Your task to perform on an android device: toggle show notifications on the lock screen Image 0: 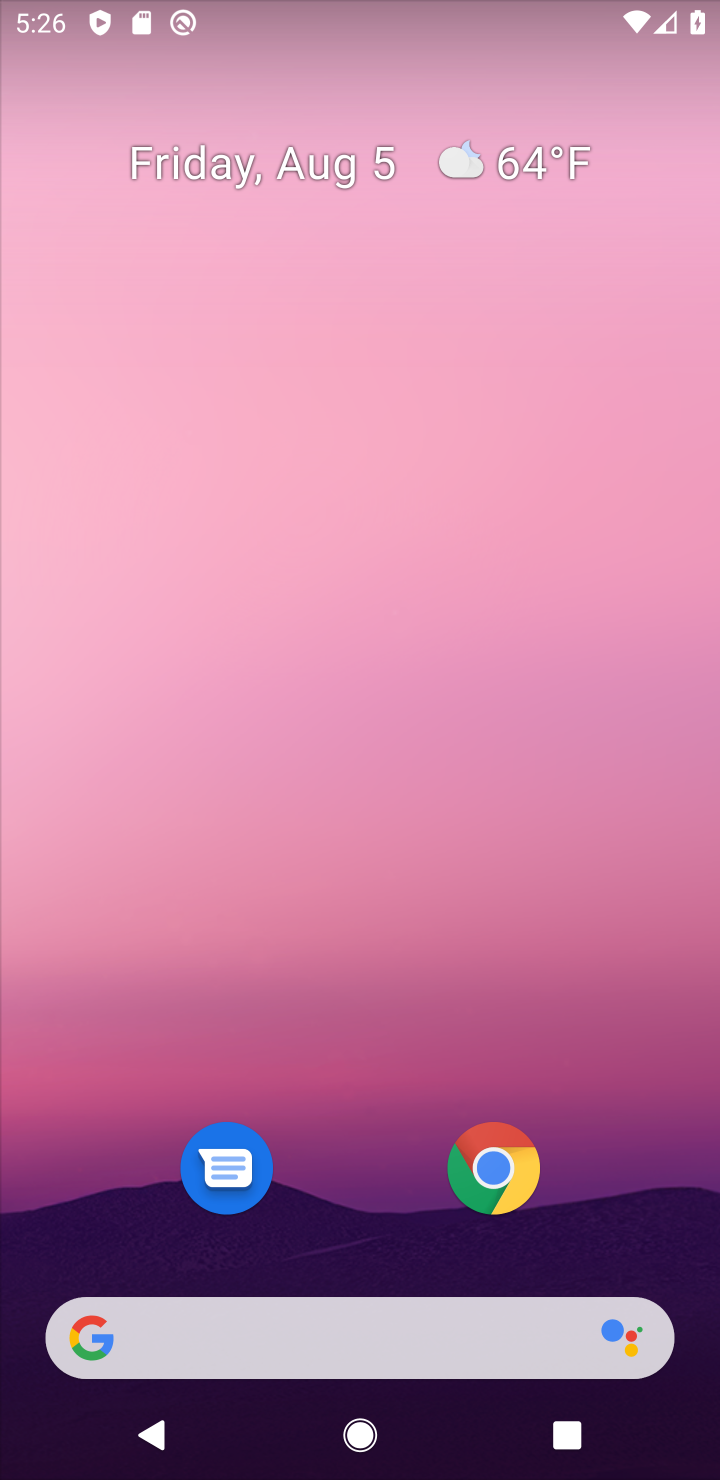
Step 0: press home button
Your task to perform on an android device: toggle show notifications on the lock screen Image 1: 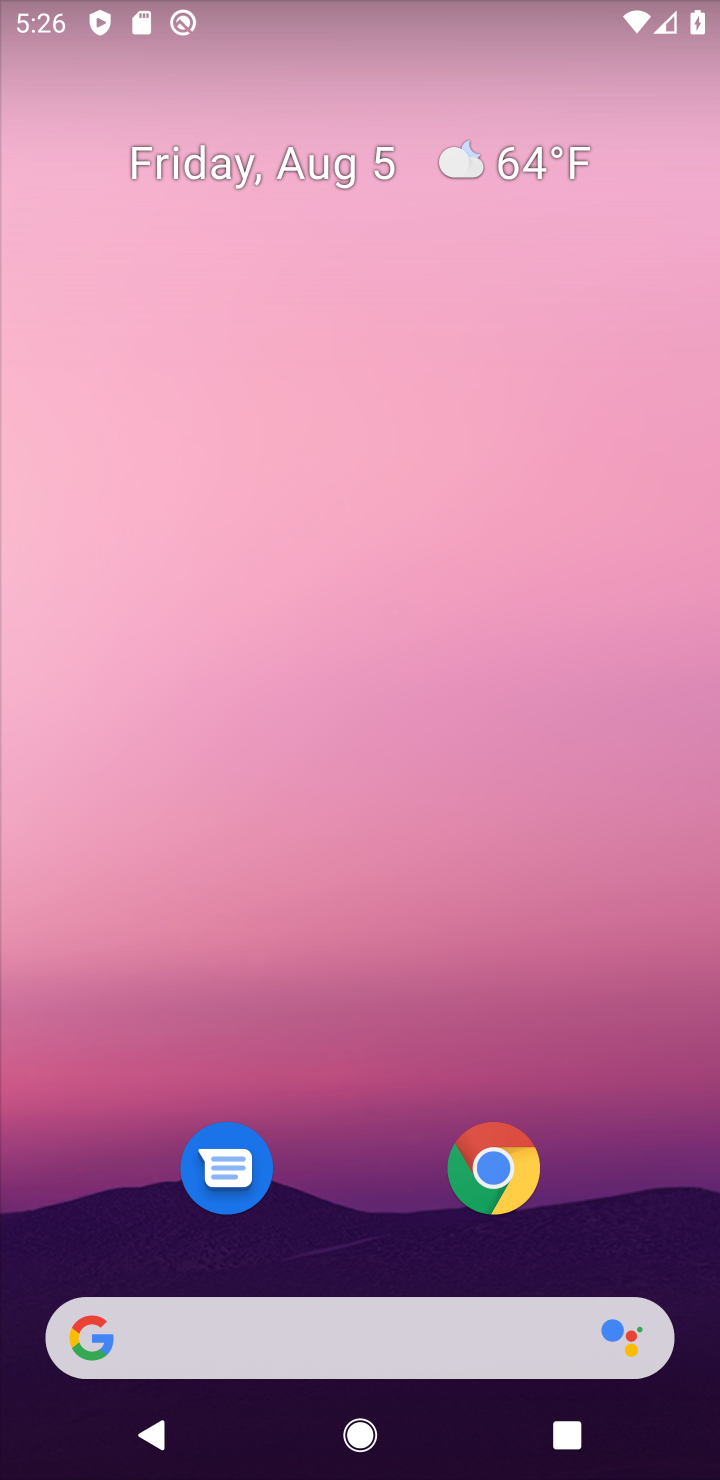
Step 1: drag from (385, 1192) to (392, 97)
Your task to perform on an android device: toggle show notifications on the lock screen Image 2: 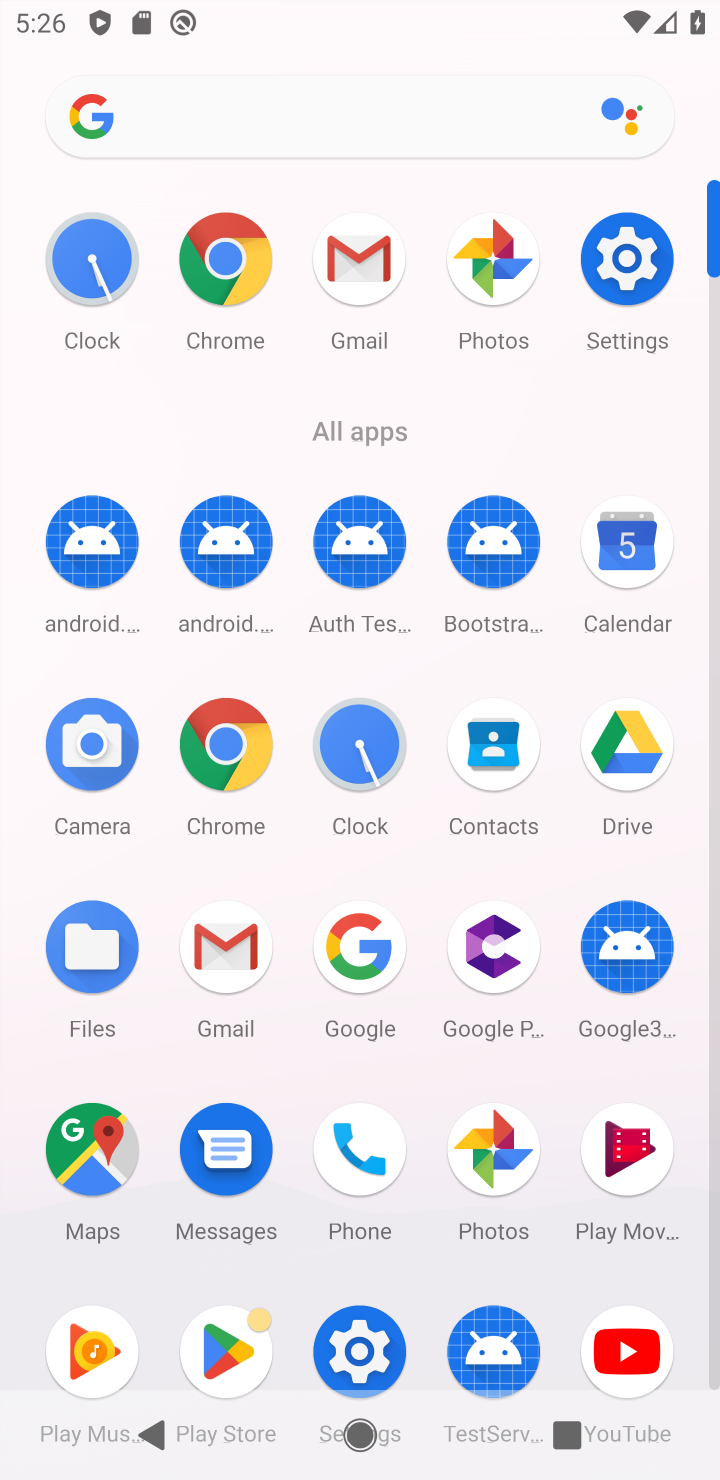
Step 2: click (621, 269)
Your task to perform on an android device: toggle show notifications on the lock screen Image 3: 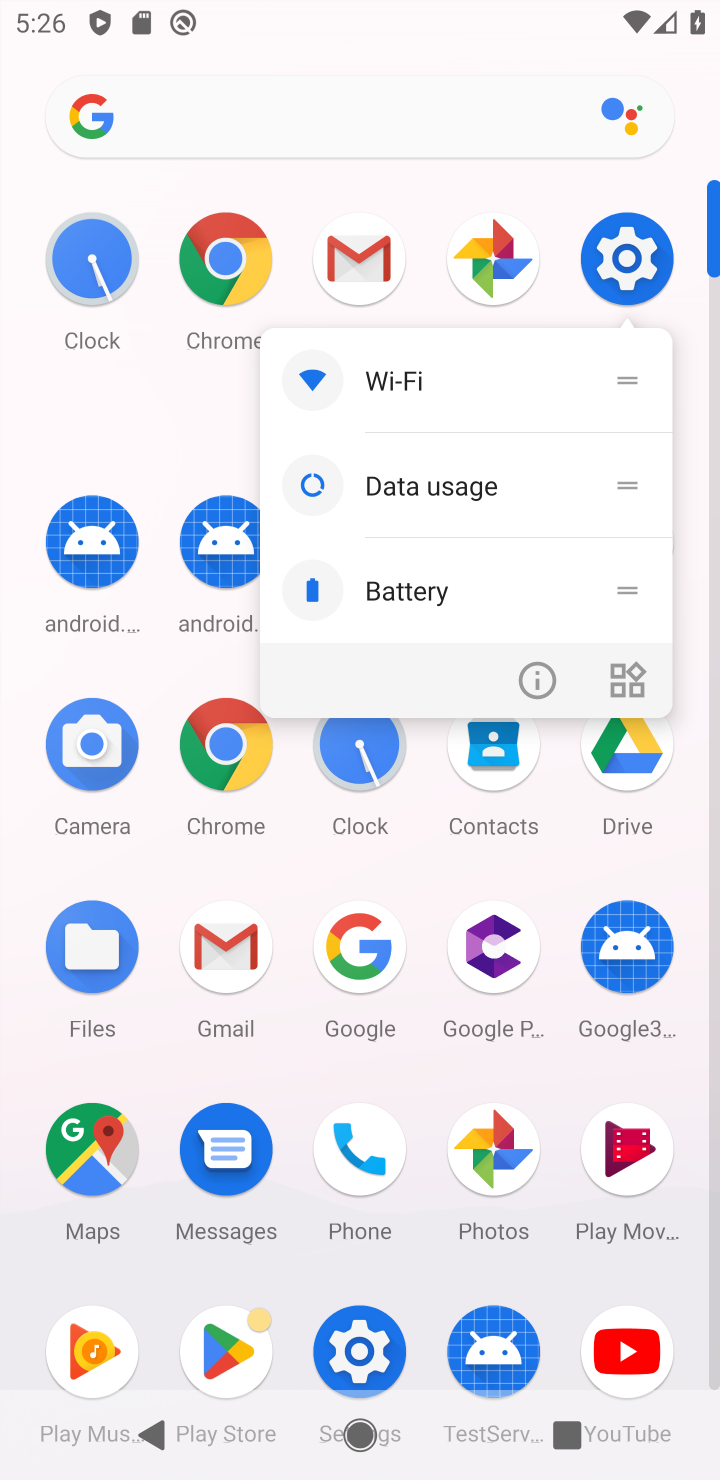
Step 3: click (621, 269)
Your task to perform on an android device: toggle show notifications on the lock screen Image 4: 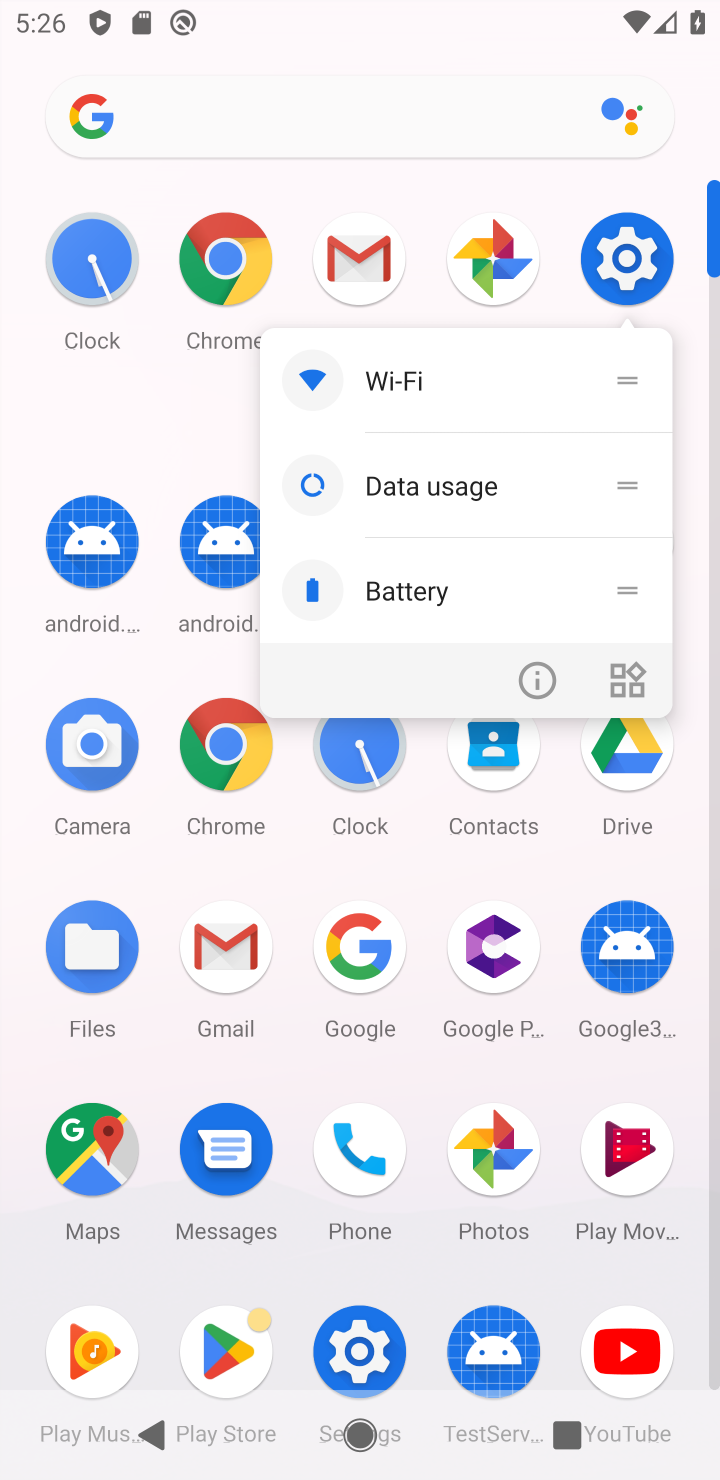
Step 4: click (640, 268)
Your task to perform on an android device: toggle show notifications on the lock screen Image 5: 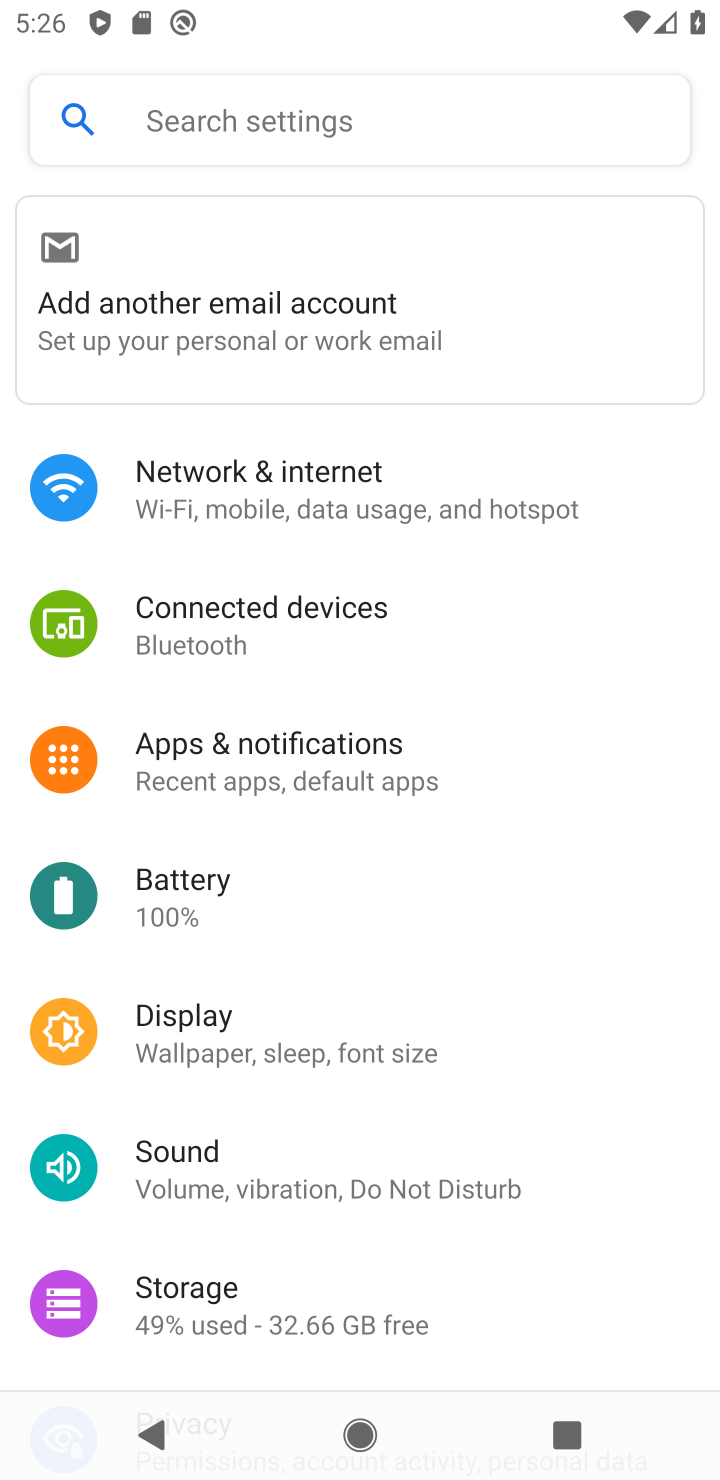
Step 5: click (210, 756)
Your task to perform on an android device: toggle show notifications on the lock screen Image 6: 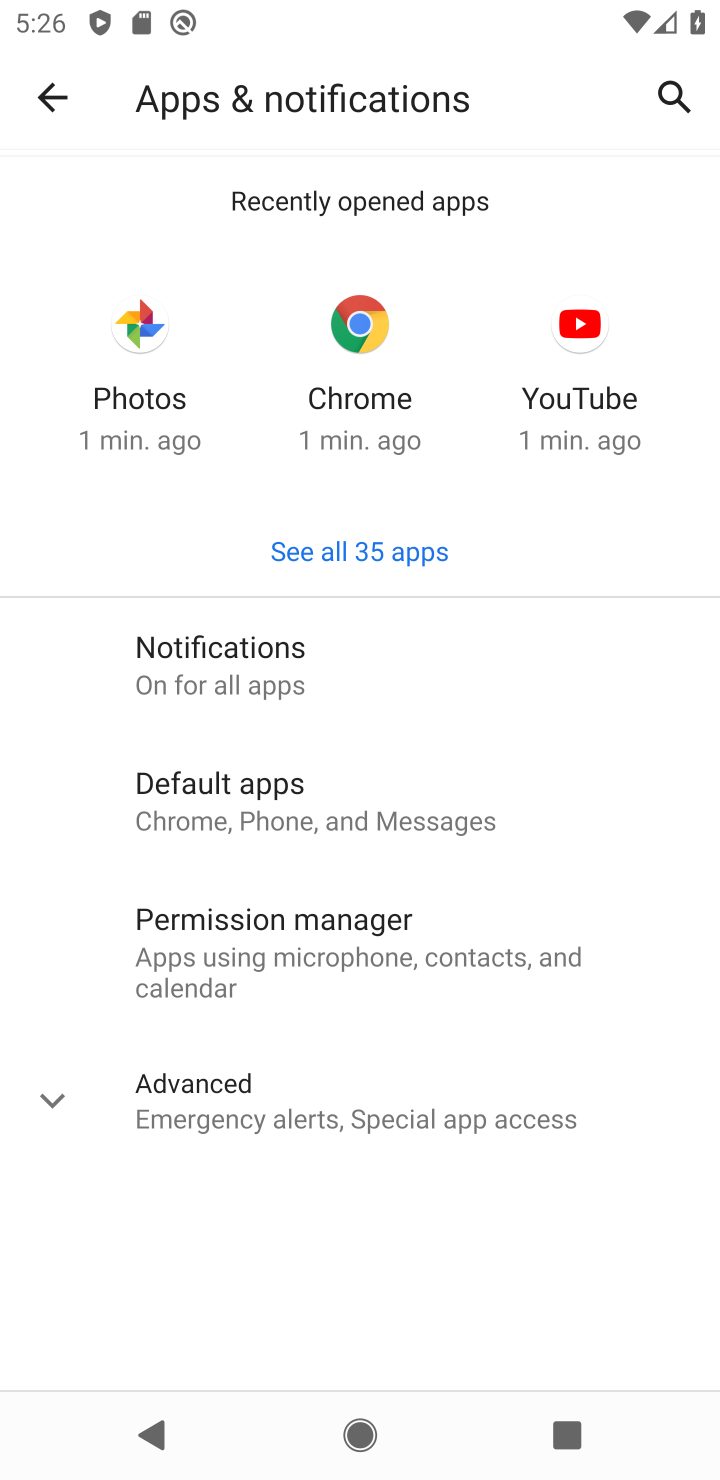
Step 6: click (249, 682)
Your task to perform on an android device: toggle show notifications on the lock screen Image 7: 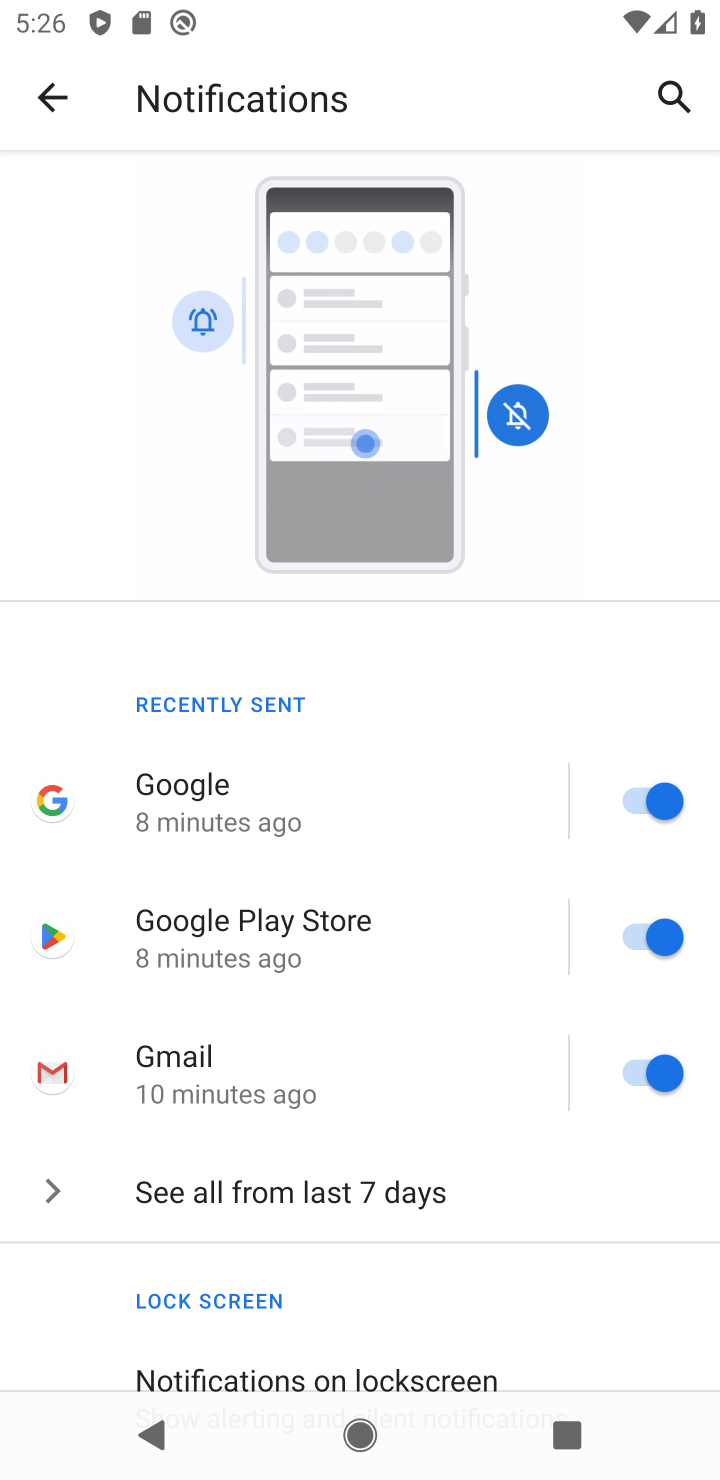
Step 7: drag from (386, 1308) to (479, 335)
Your task to perform on an android device: toggle show notifications on the lock screen Image 8: 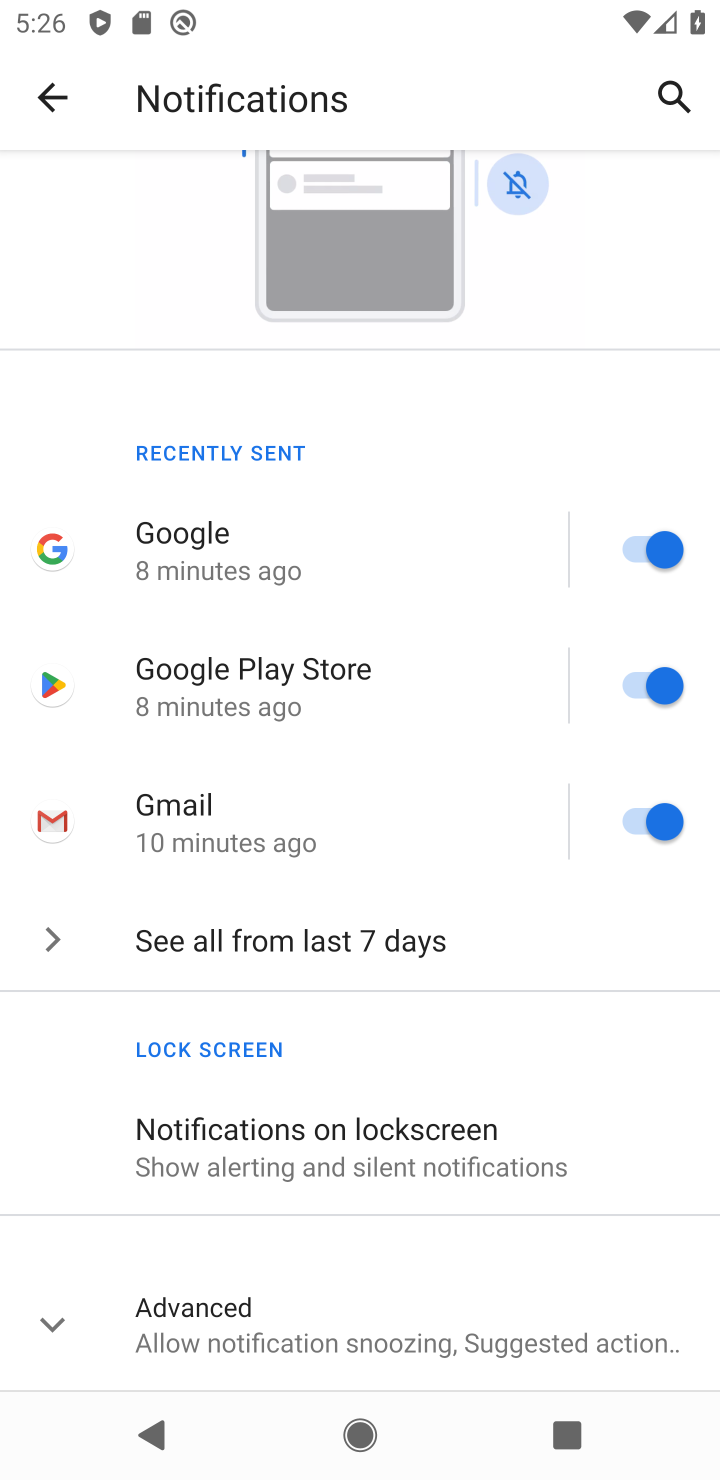
Step 8: click (253, 1157)
Your task to perform on an android device: toggle show notifications on the lock screen Image 9: 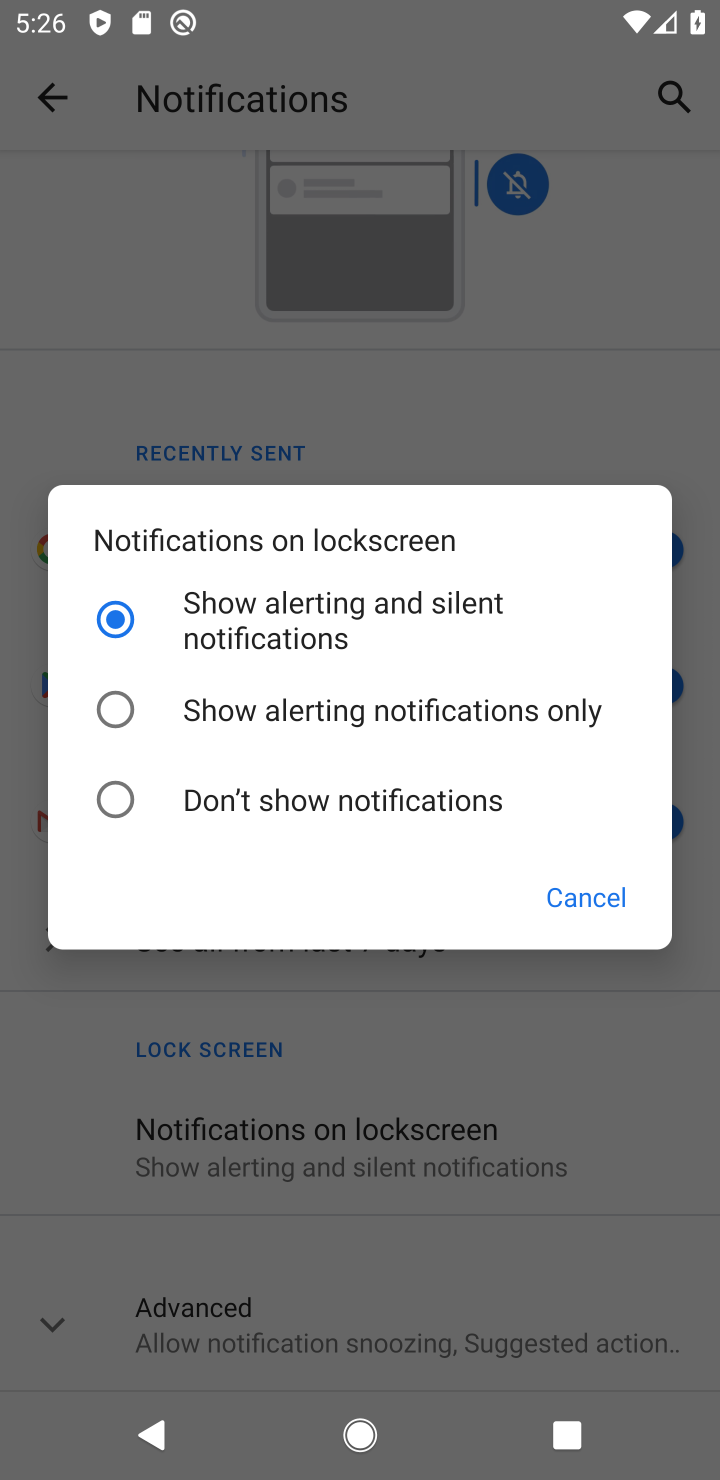
Step 9: click (113, 803)
Your task to perform on an android device: toggle show notifications on the lock screen Image 10: 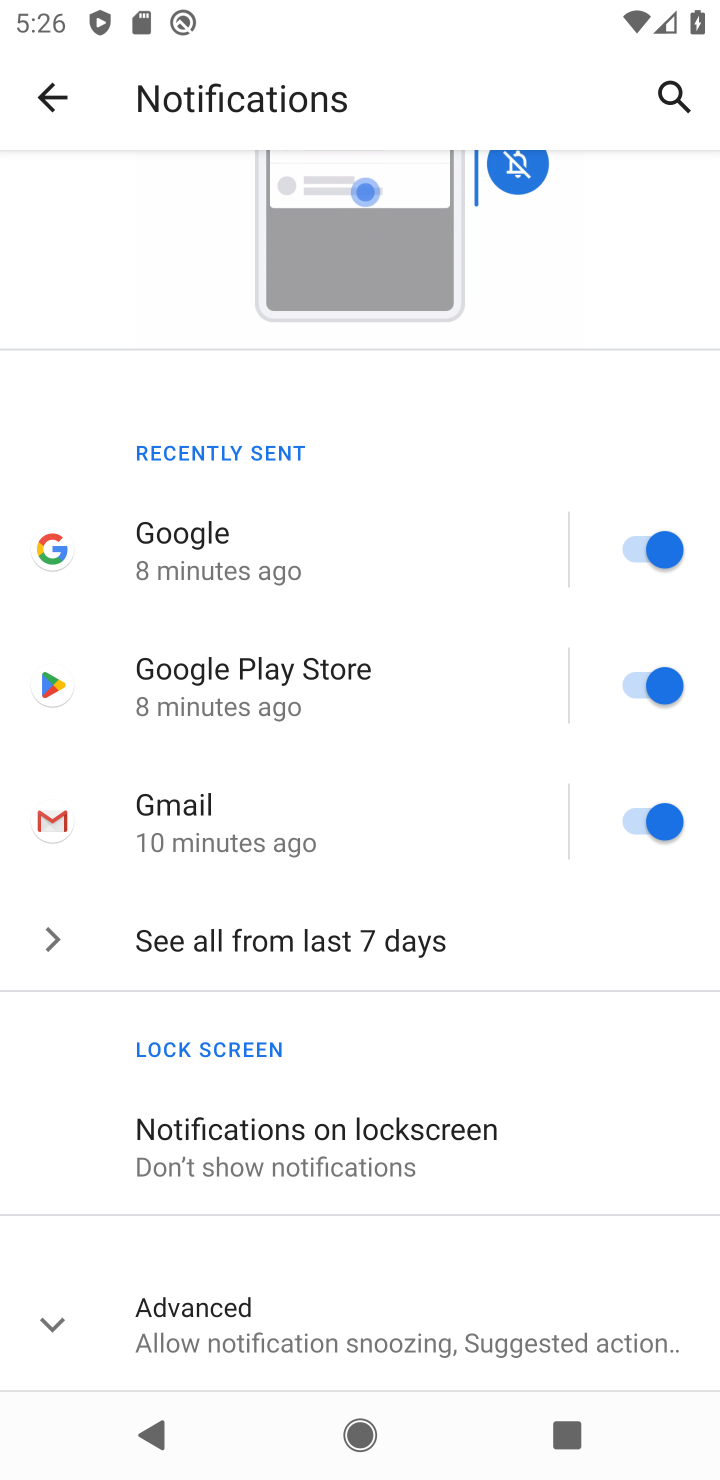
Step 10: task complete